Your task to perform on an android device: Open the map Image 0: 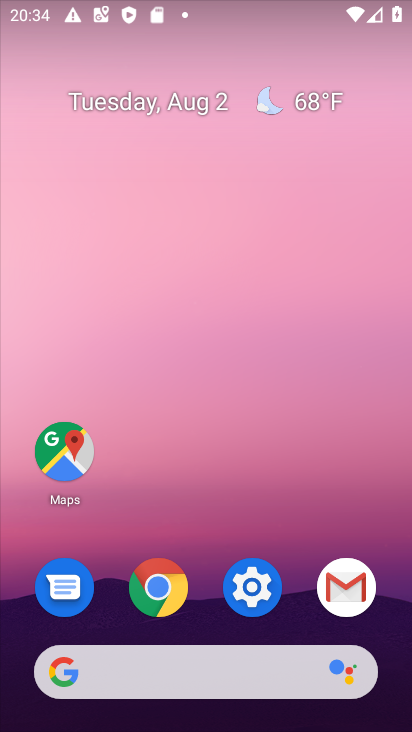
Step 0: press home button
Your task to perform on an android device: Open the map Image 1: 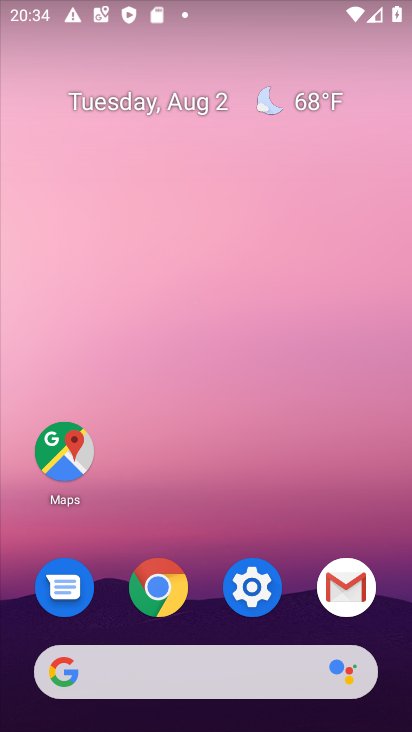
Step 1: click (67, 470)
Your task to perform on an android device: Open the map Image 2: 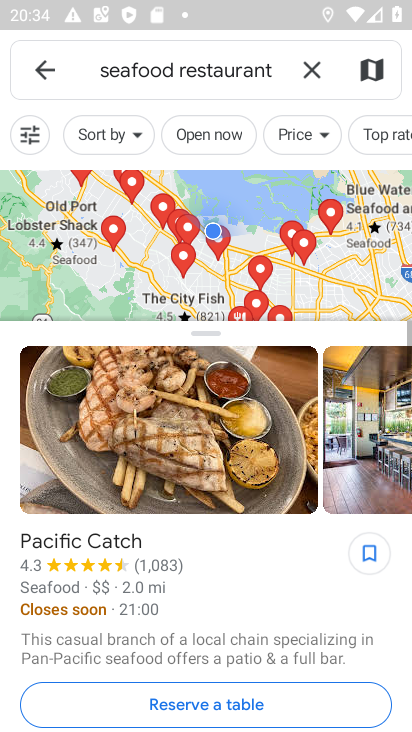
Step 2: click (36, 56)
Your task to perform on an android device: Open the map Image 3: 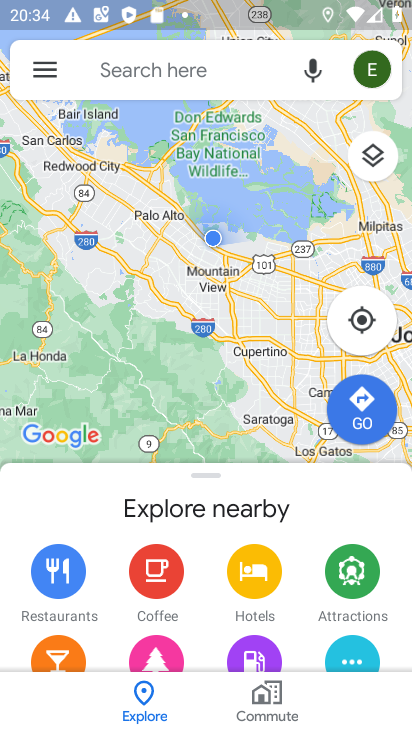
Step 3: click (379, 309)
Your task to perform on an android device: Open the map Image 4: 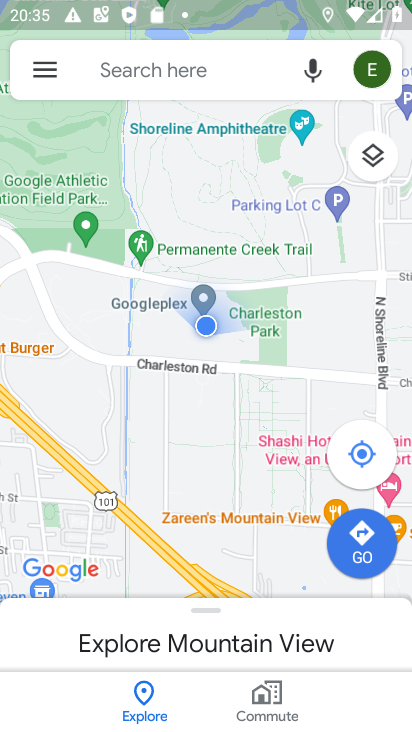
Step 4: task complete